Your task to perform on an android device: Open Chrome and go to settings Image 0: 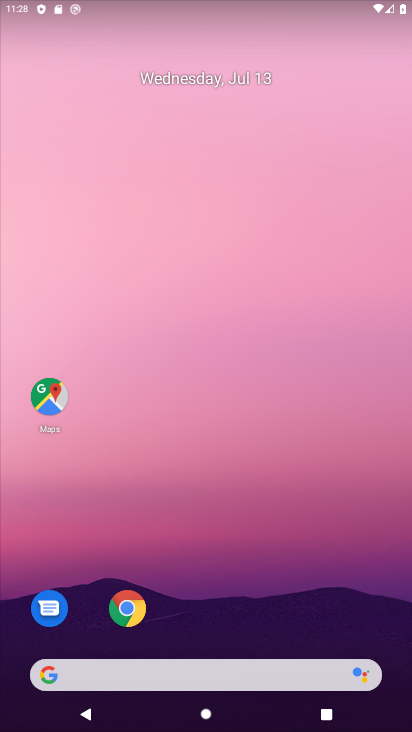
Step 0: click (131, 607)
Your task to perform on an android device: Open Chrome and go to settings Image 1: 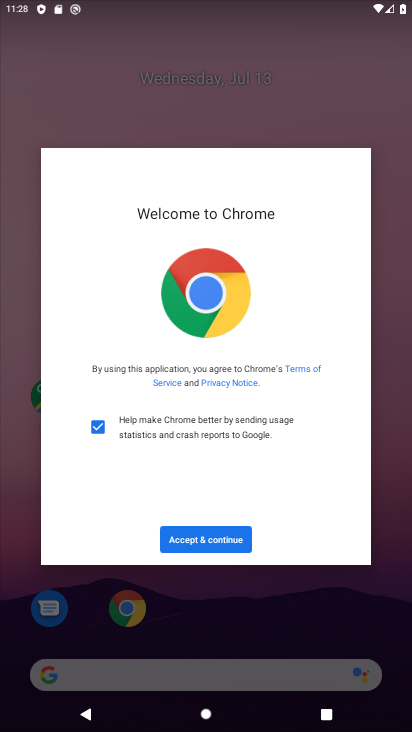
Step 1: click (186, 535)
Your task to perform on an android device: Open Chrome and go to settings Image 2: 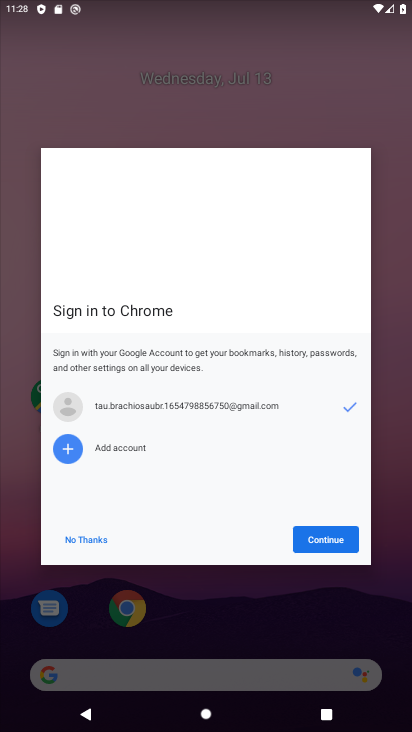
Step 2: click (94, 551)
Your task to perform on an android device: Open Chrome and go to settings Image 3: 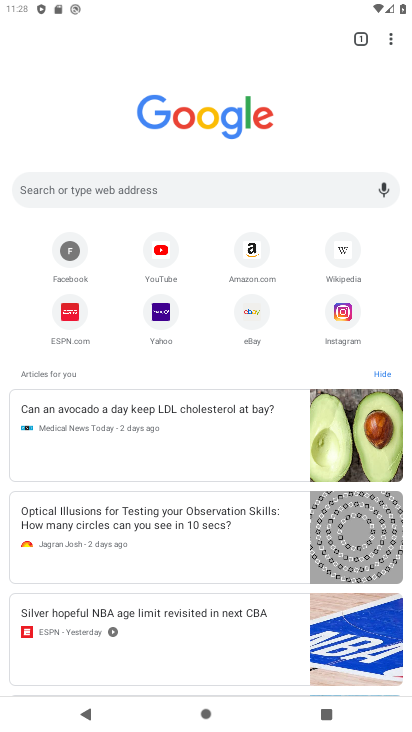
Step 3: click (396, 37)
Your task to perform on an android device: Open Chrome and go to settings Image 4: 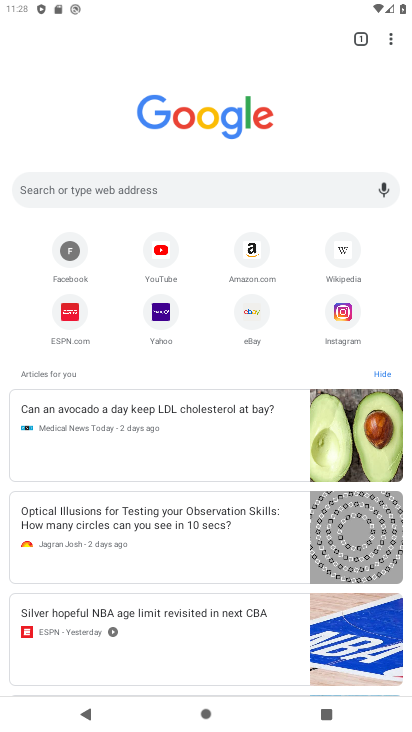
Step 4: click (394, 38)
Your task to perform on an android device: Open Chrome and go to settings Image 5: 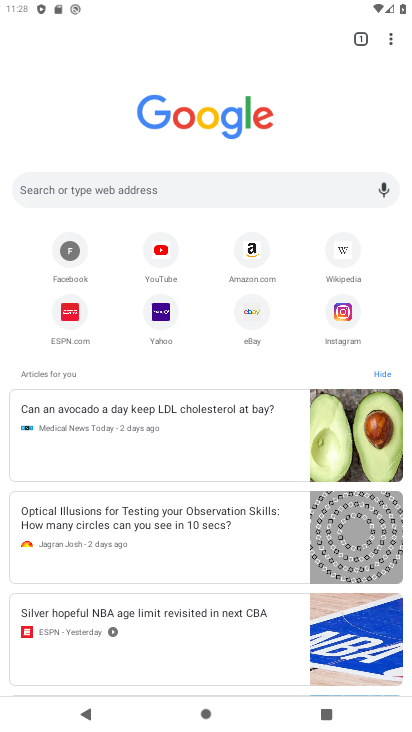
Step 5: click (387, 35)
Your task to perform on an android device: Open Chrome and go to settings Image 6: 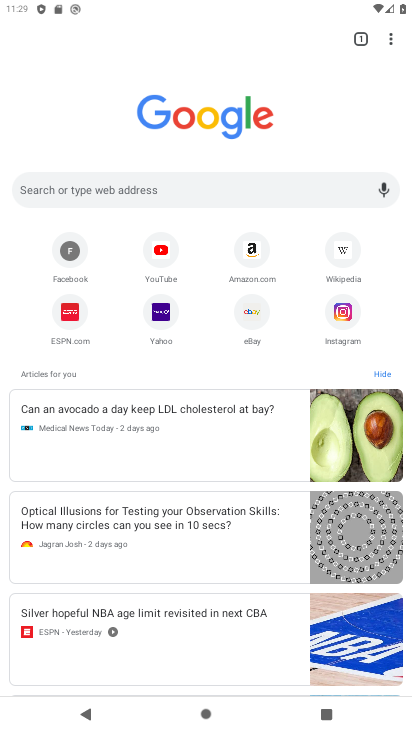
Step 6: click (391, 40)
Your task to perform on an android device: Open Chrome and go to settings Image 7: 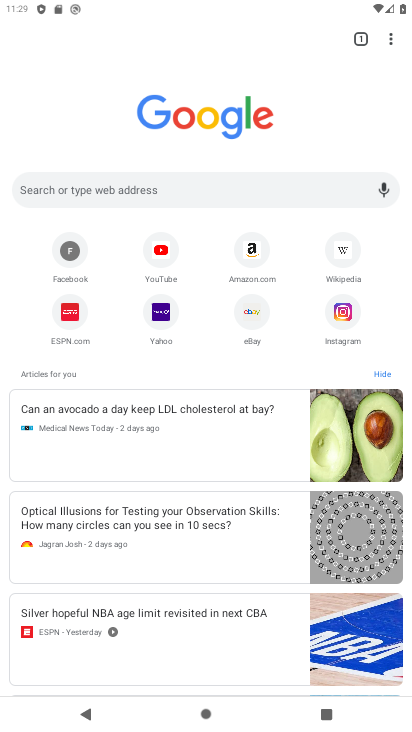
Step 7: click (391, 44)
Your task to perform on an android device: Open Chrome and go to settings Image 8: 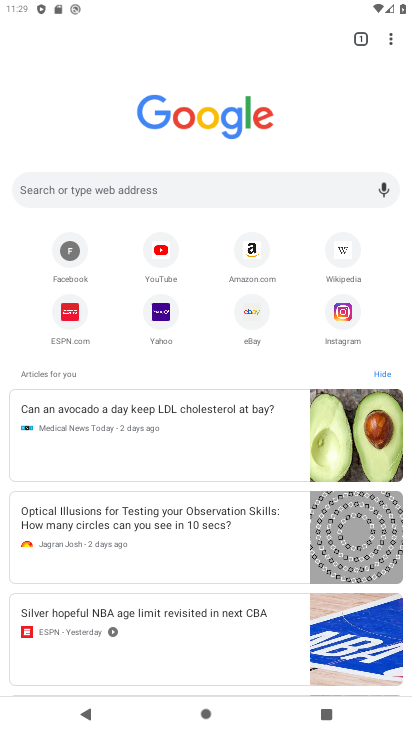
Step 8: click (393, 45)
Your task to perform on an android device: Open Chrome and go to settings Image 9: 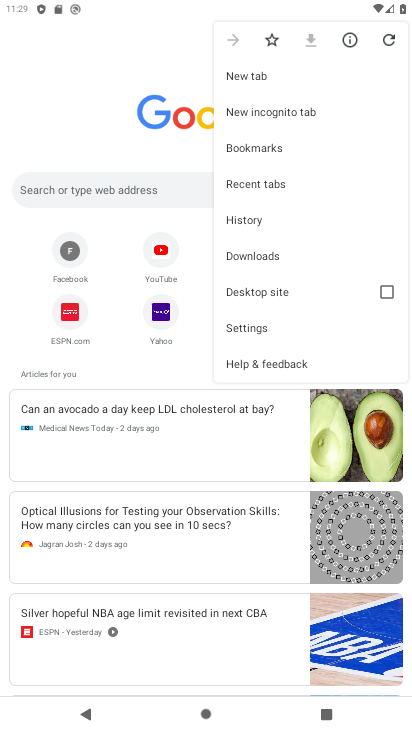
Step 9: click (253, 327)
Your task to perform on an android device: Open Chrome and go to settings Image 10: 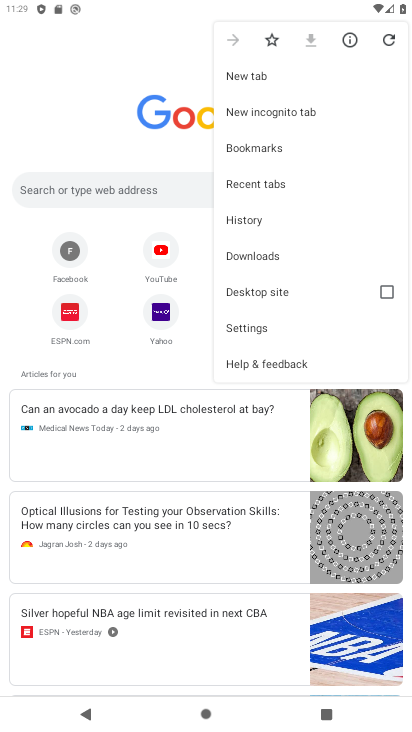
Step 10: click (268, 324)
Your task to perform on an android device: Open Chrome and go to settings Image 11: 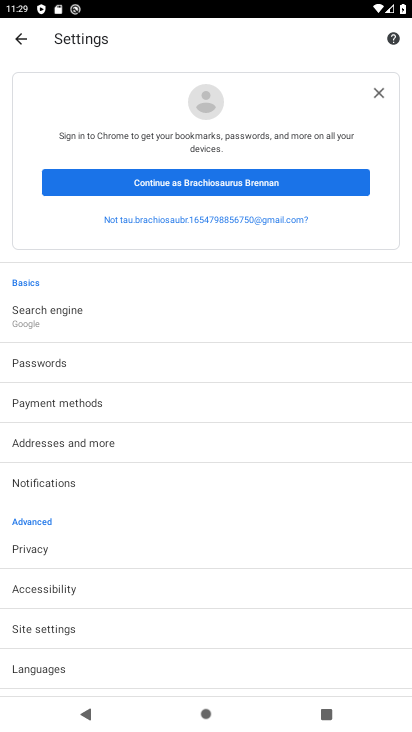
Step 11: click (379, 94)
Your task to perform on an android device: Open Chrome and go to settings Image 12: 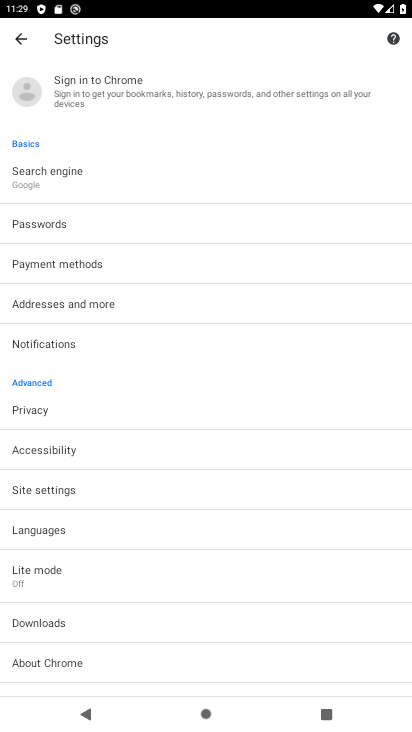
Step 12: task complete